Your task to perform on an android device: check battery use Image 0: 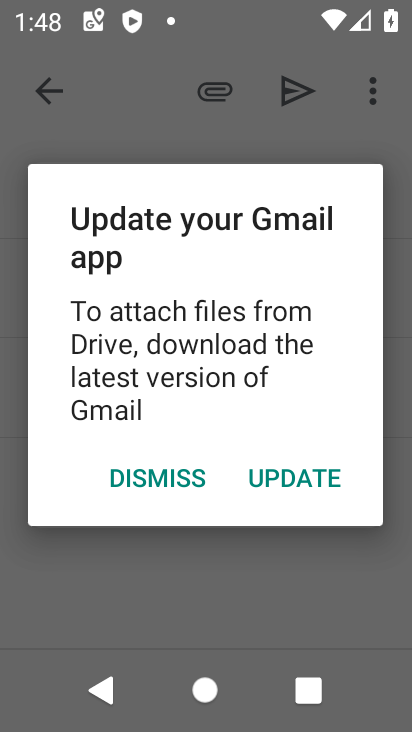
Step 0: press home button
Your task to perform on an android device: check battery use Image 1: 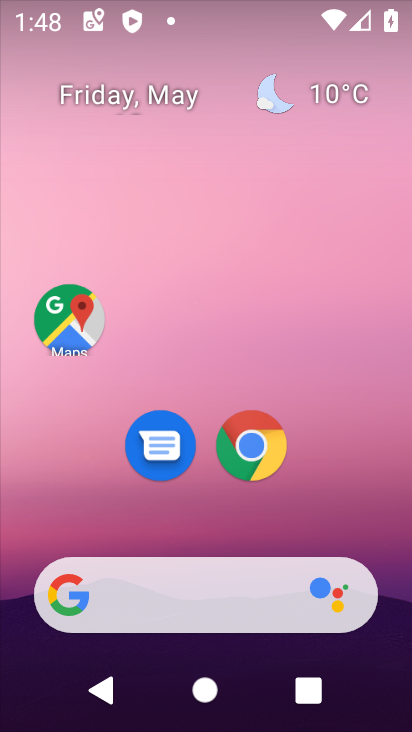
Step 1: drag from (214, 551) to (232, 273)
Your task to perform on an android device: check battery use Image 2: 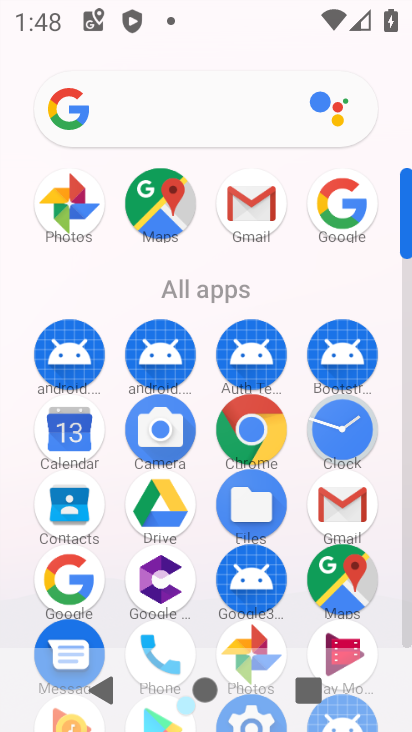
Step 2: drag from (300, 366) to (300, 320)
Your task to perform on an android device: check battery use Image 3: 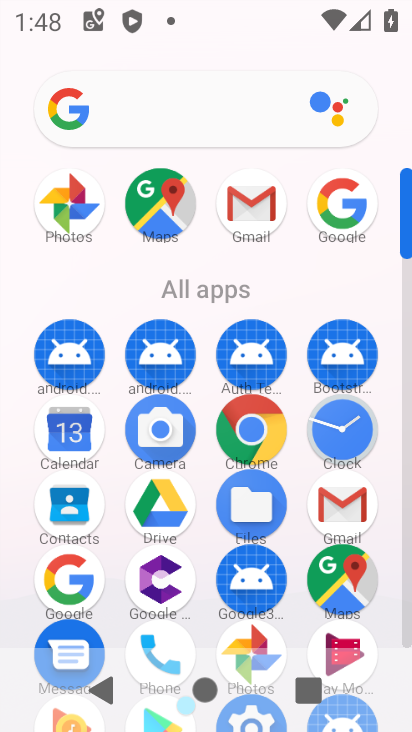
Step 3: drag from (292, 530) to (312, 212)
Your task to perform on an android device: check battery use Image 4: 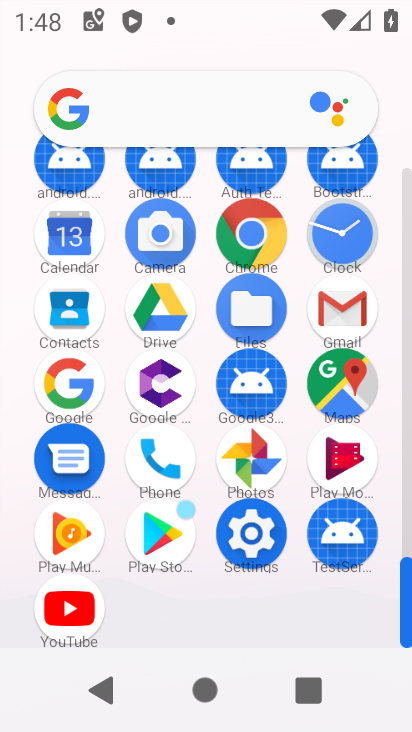
Step 4: click (250, 533)
Your task to perform on an android device: check battery use Image 5: 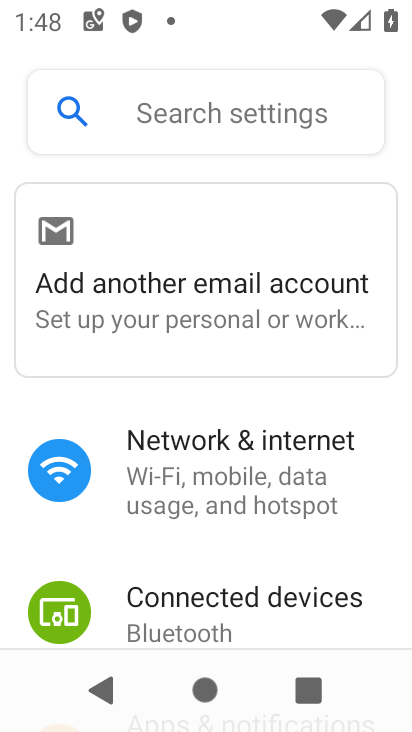
Step 5: drag from (241, 618) to (221, 292)
Your task to perform on an android device: check battery use Image 6: 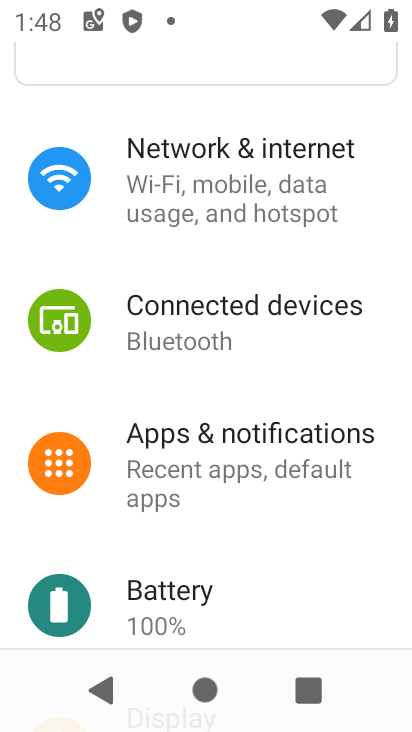
Step 6: click (185, 598)
Your task to perform on an android device: check battery use Image 7: 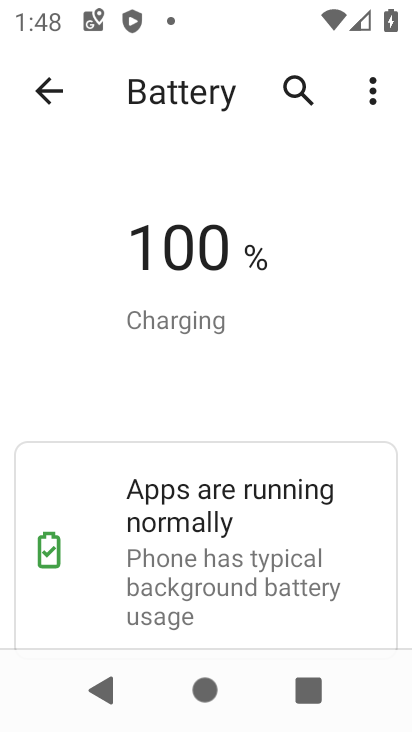
Step 7: click (373, 84)
Your task to perform on an android device: check battery use Image 8: 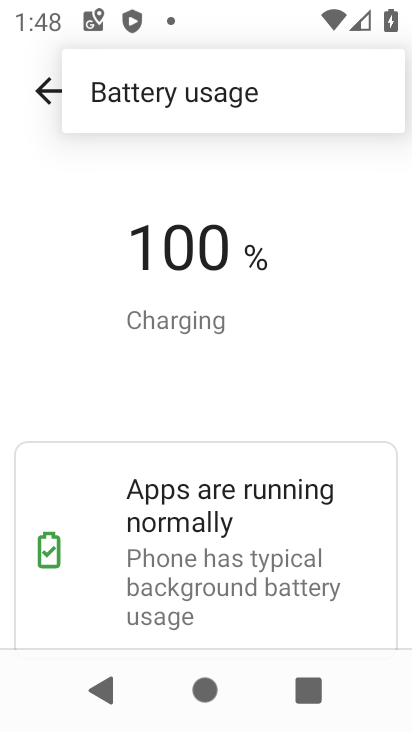
Step 8: click (210, 93)
Your task to perform on an android device: check battery use Image 9: 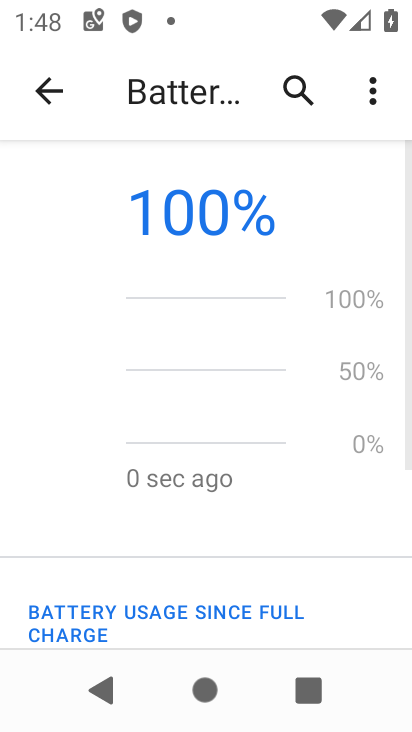
Step 9: task complete